Your task to perform on an android device: refresh tabs in the chrome app Image 0: 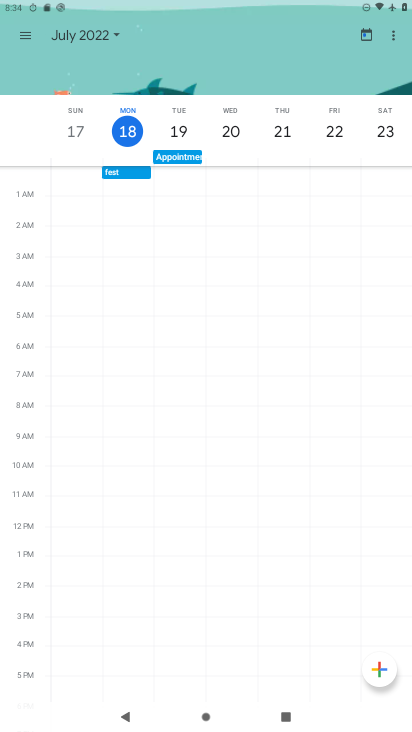
Step 0: press home button
Your task to perform on an android device: refresh tabs in the chrome app Image 1: 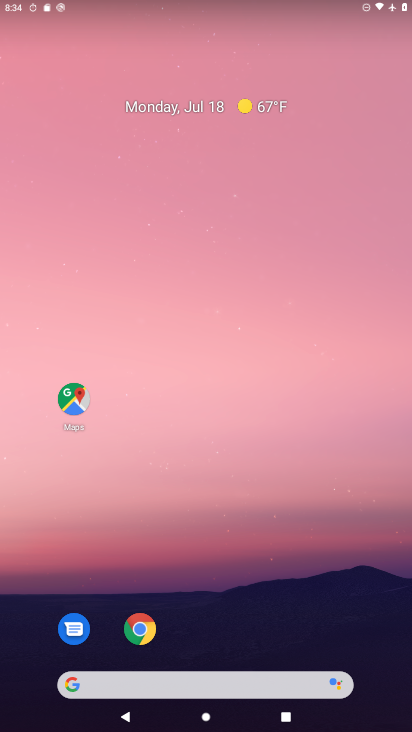
Step 1: drag from (189, 662) to (163, 4)
Your task to perform on an android device: refresh tabs in the chrome app Image 2: 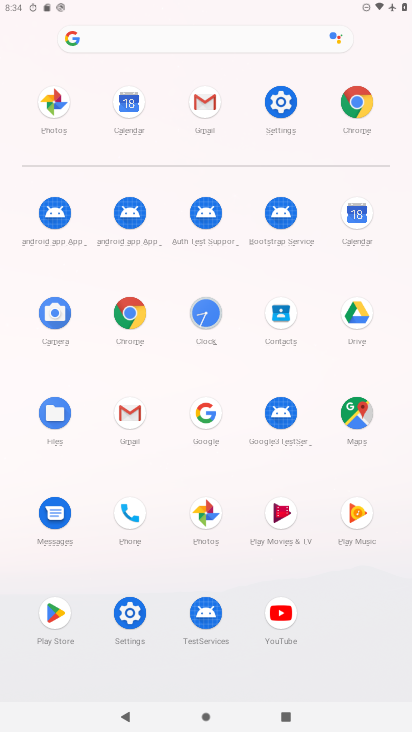
Step 2: click (132, 325)
Your task to perform on an android device: refresh tabs in the chrome app Image 3: 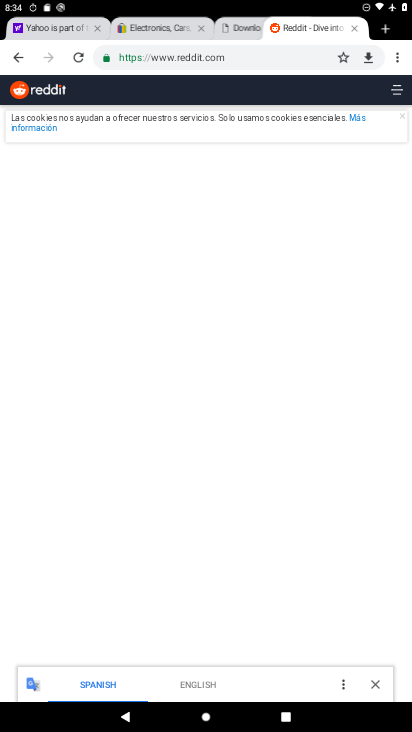
Step 3: click (73, 57)
Your task to perform on an android device: refresh tabs in the chrome app Image 4: 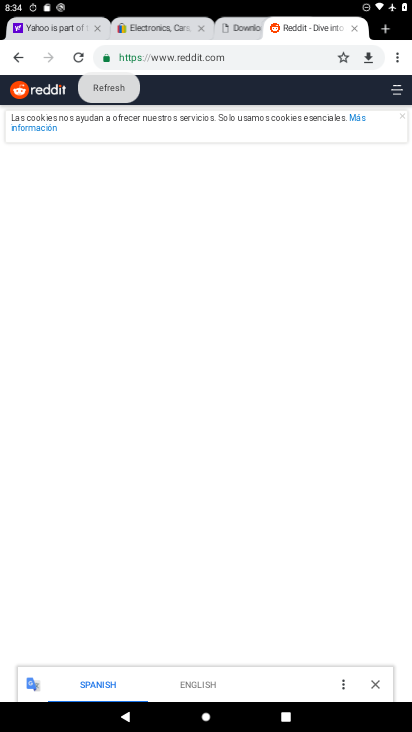
Step 4: click (78, 53)
Your task to perform on an android device: refresh tabs in the chrome app Image 5: 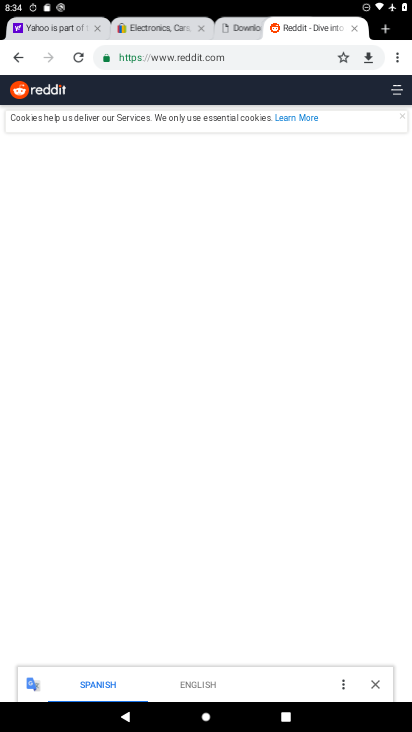
Step 5: click (76, 53)
Your task to perform on an android device: refresh tabs in the chrome app Image 6: 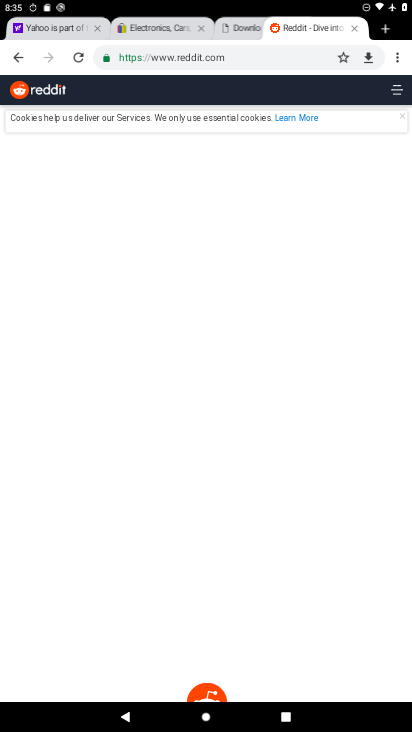
Step 6: task complete